Your task to perform on an android device: Open Wikipedia Image 0: 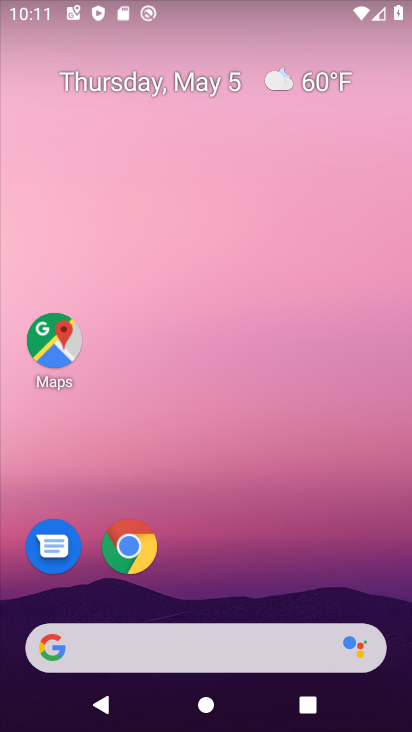
Step 0: click (138, 542)
Your task to perform on an android device: Open Wikipedia Image 1: 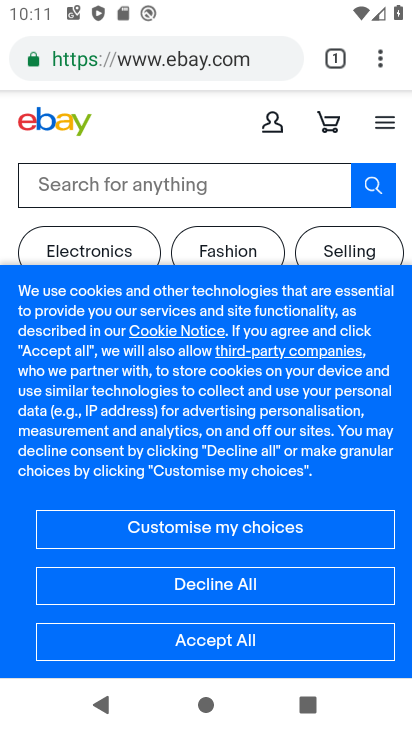
Step 1: click (162, 61)
Your task to perform on an android device: Open Wikipedia Image 2: 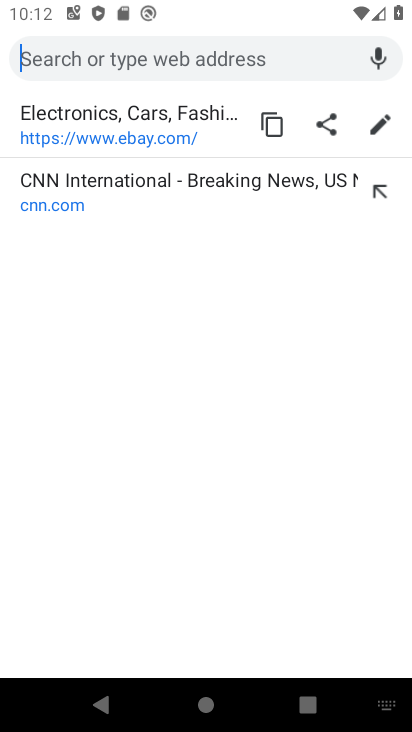
Step 2: type "wikipedia"
Your task to perform on an android device: Open Wikipedia Image 3: 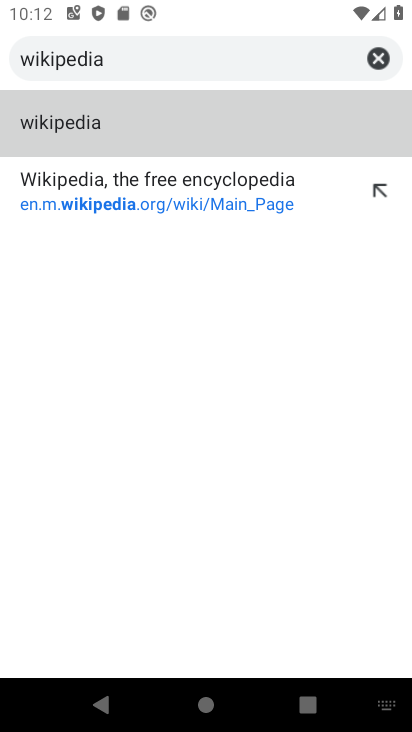
Step 3: click (22, 133)
Your task to perform on an android device: Open Wikipedia Image 4: 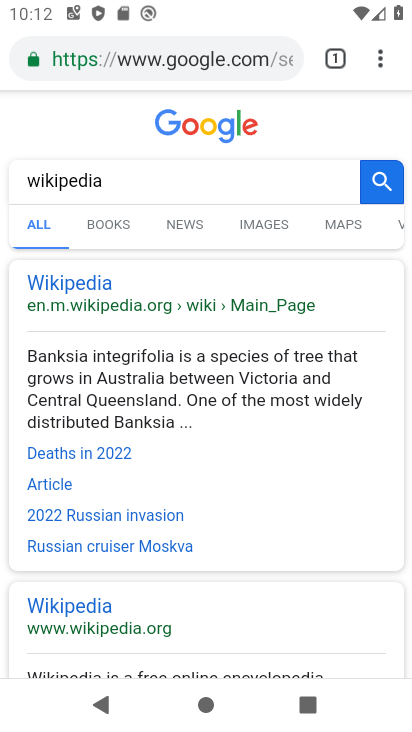
Step 4: click (73, 281)
Your task to perform on an android device: Open Wikipedia Image 5: 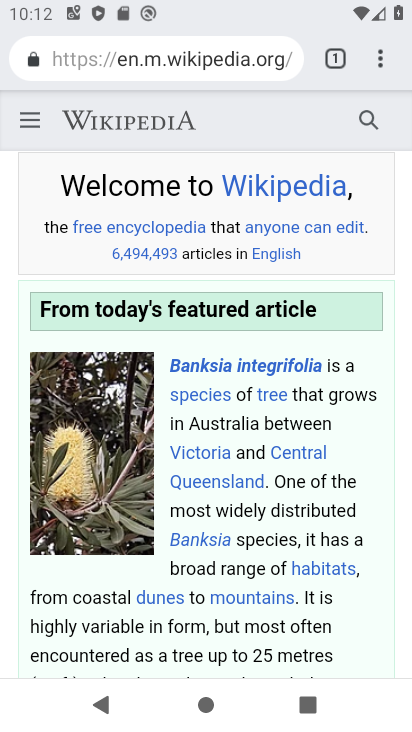
Step 5: task complete